Your task to perform on an android device: Show me recent news Image 0: 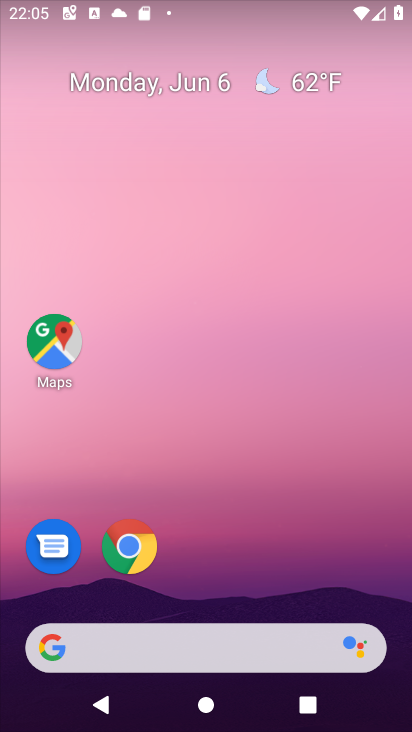
Step 0: drag from (8, 284) to (318, 260)
Your task to perform on an android device: Show me recent news Image 1: 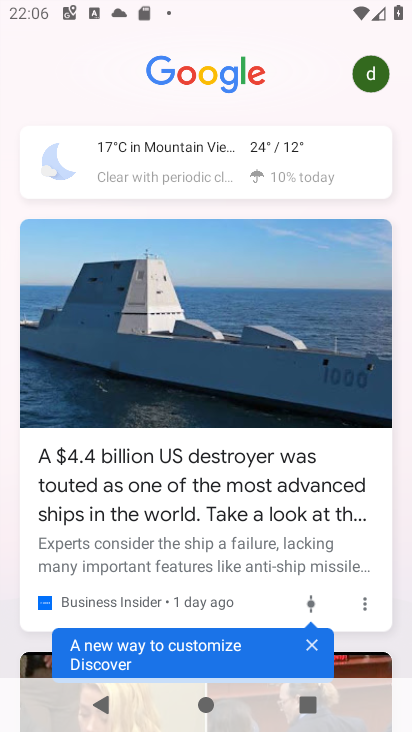
Step 1: task complete